Your task to perform on an android device: check google app version Image 0: 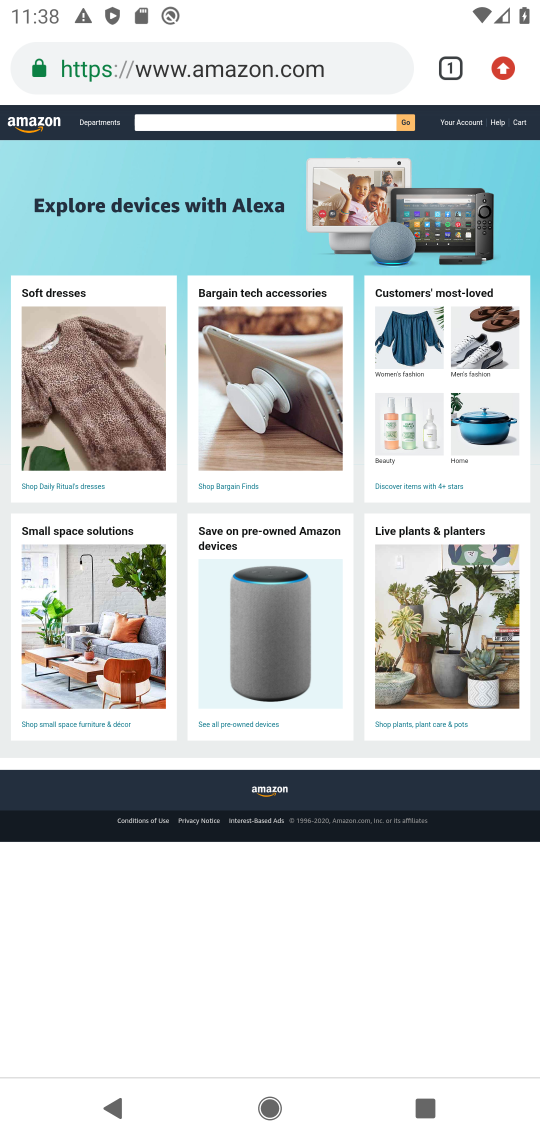
Step 0: press home button
Your task to perform on an android device: check google app version Image 1: 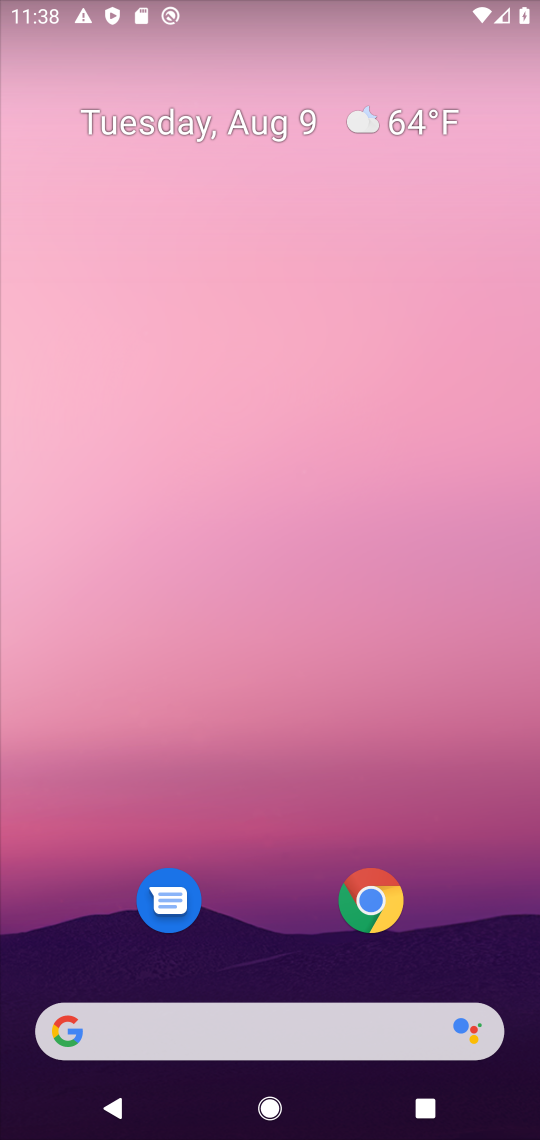
Step 1: drag from (252, 310) to (268, 62)
Your task to perform on an android device: check google app version Image 2: 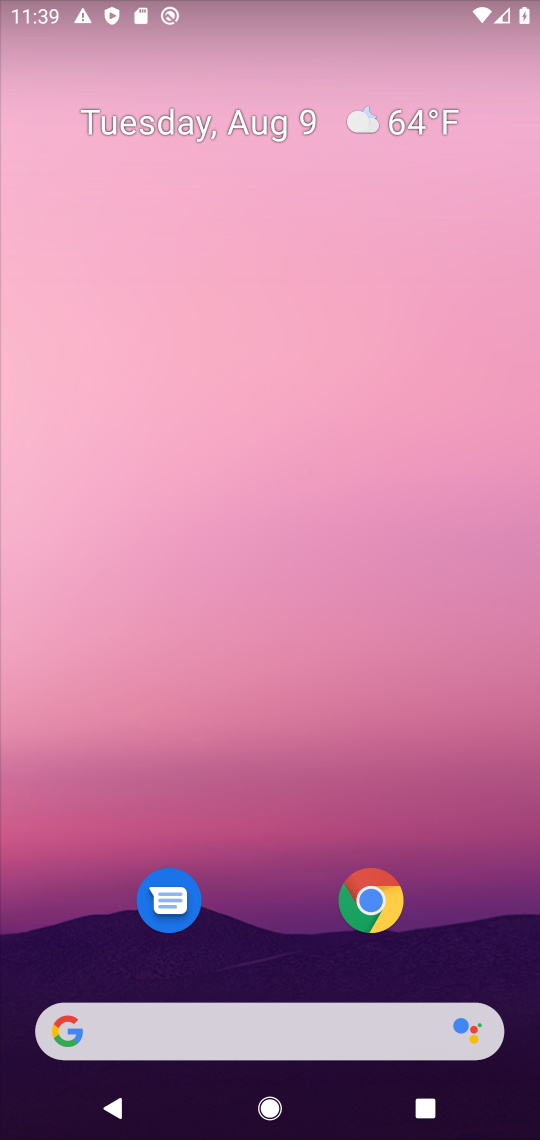
Step 2: drag from (267, 863) to (331, 36)
Your task to perform on an android device: check google app version Image 3: 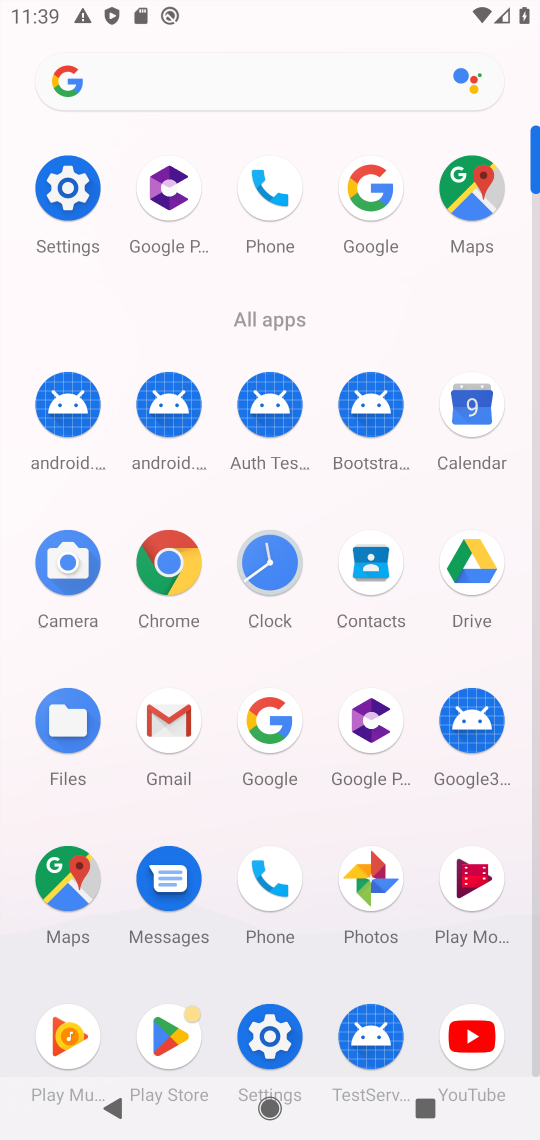
Step 3: click (259, 726)
Your task to perform on an android device: check google app version Image 4: 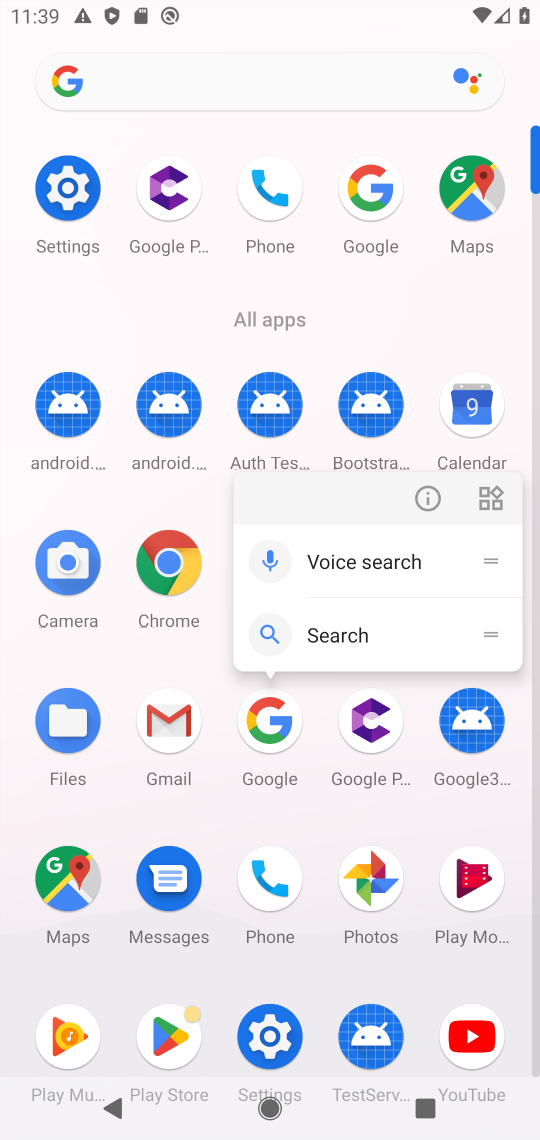
Step 4: click (259, 727)
Your task to perform on an android device: check google app version Image 5: 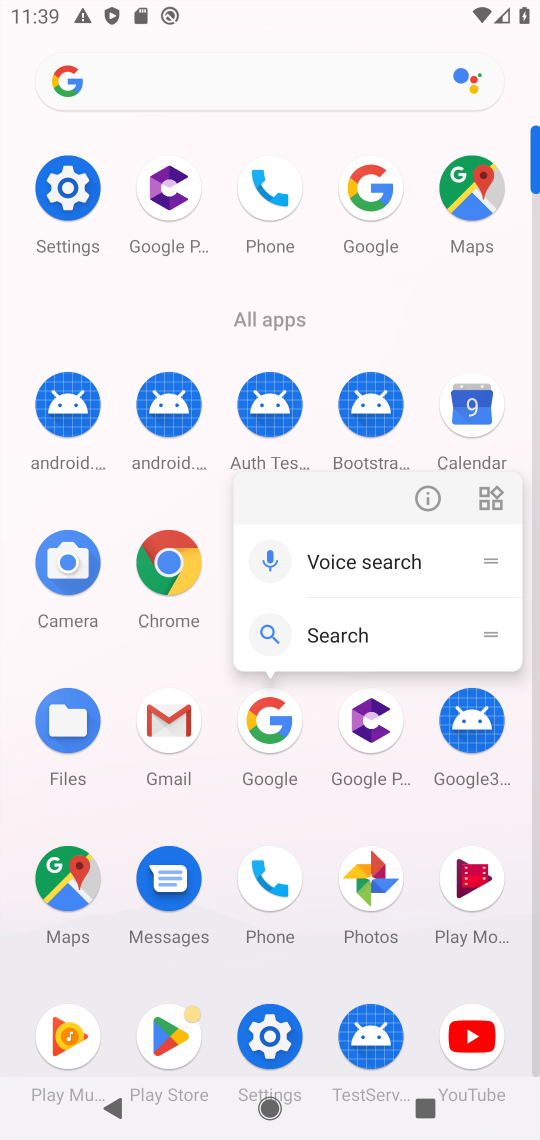
Step 5: click (259, 727)
Your task to perform on an android device: check google app version Image 6: 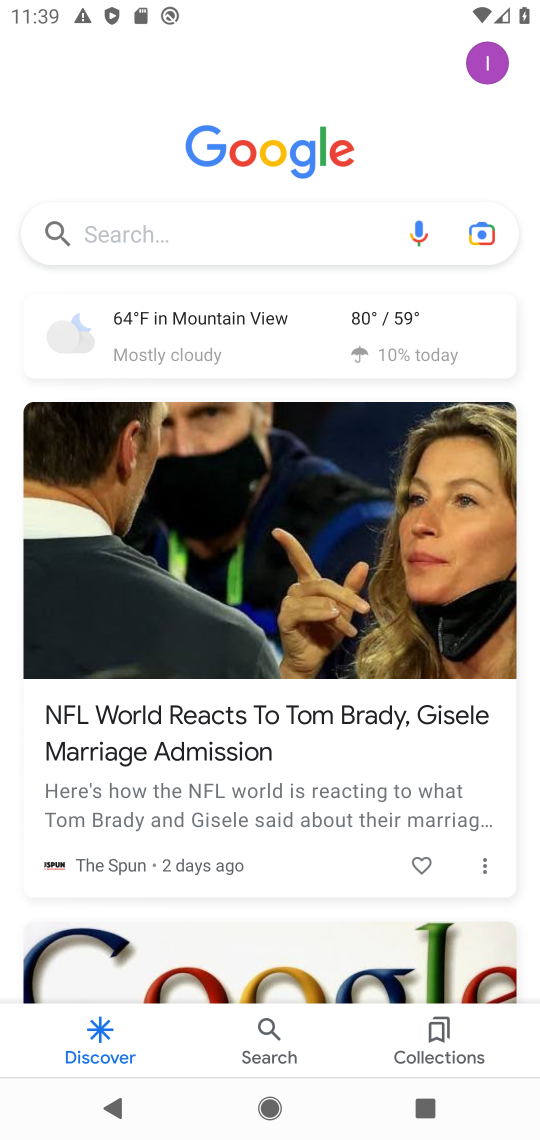
Step 6: click (482, 77)
Your task to perform on an android device: check google app version Image 7: 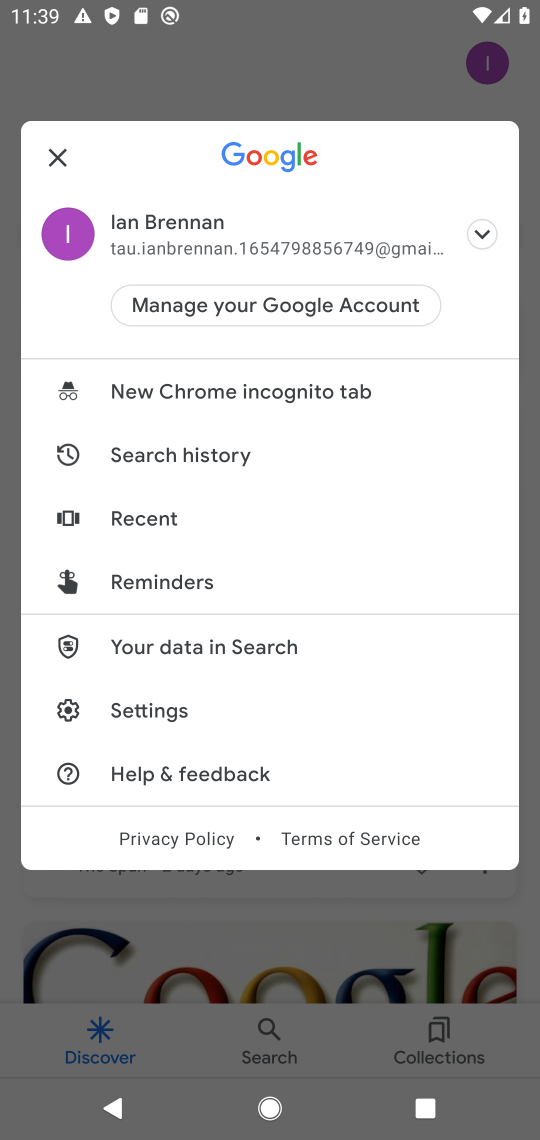
Step 7: click (152, 712)
Your task to perform on an android device: check google app version Image 8: 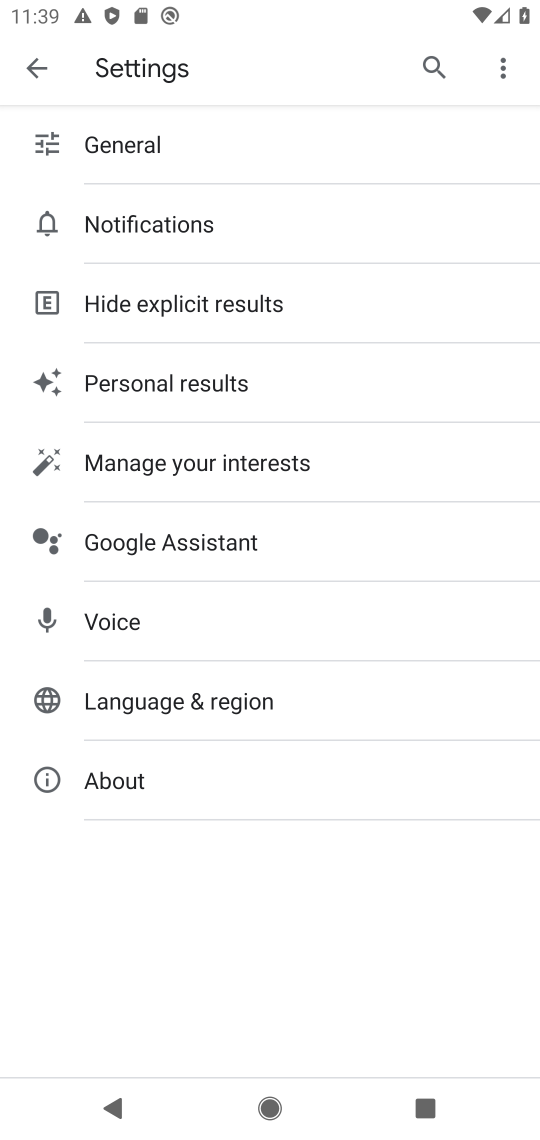
Step 8: click (125, 778)
Your task to perform on an android device: check google app version Image 9: 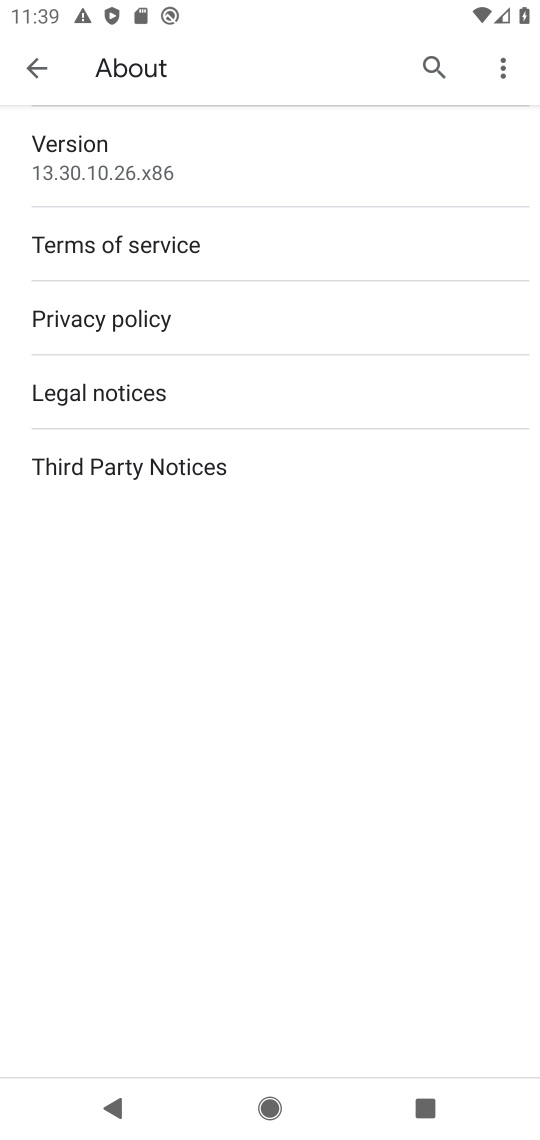
Step 9: task complete